Your task to perform on an android device: toggle location history Image 0: 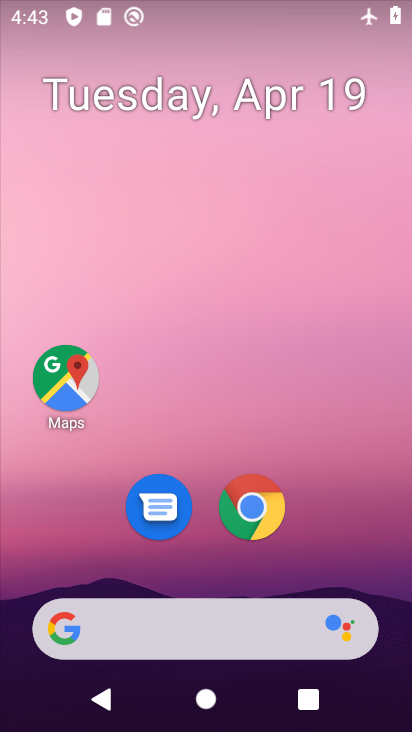
Step 0: drag from (330, 572) to (326, 151)
Your task to perform on an android device: toggle location history Image 1: 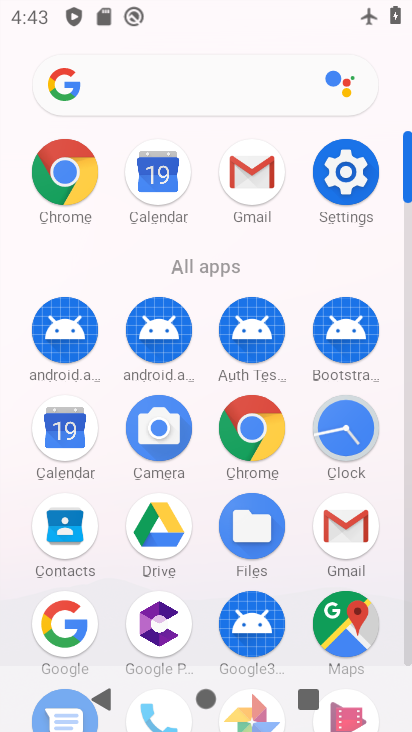
Step 1: click (366, 171)
Your task to perform on an android device: toggle location history Image 2: 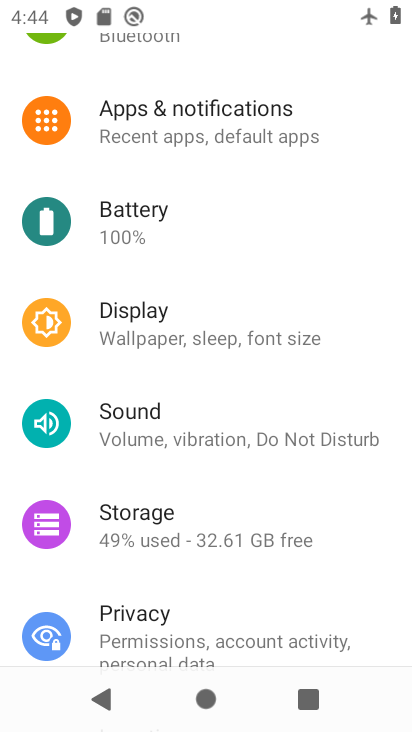
Step 2: drag from (257, 600) to (331, 85)
Your task to perform on an android device: toggle location history Image 3: 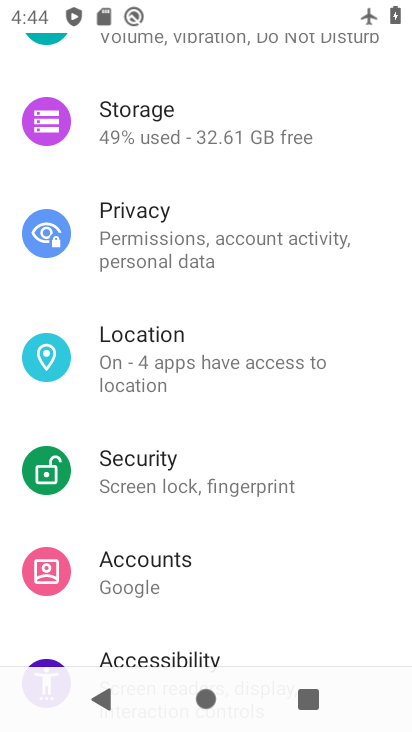
Step 3: click (139, 314)
Your task to perform on an android device: toggle location history Image 4: 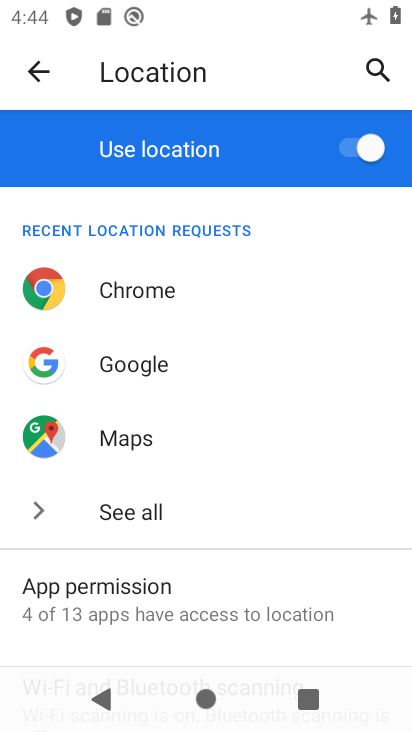
Step 4: drag from (258, 552) to (315, 159)
Your task to perform on an android device: toggle location history Image 5: 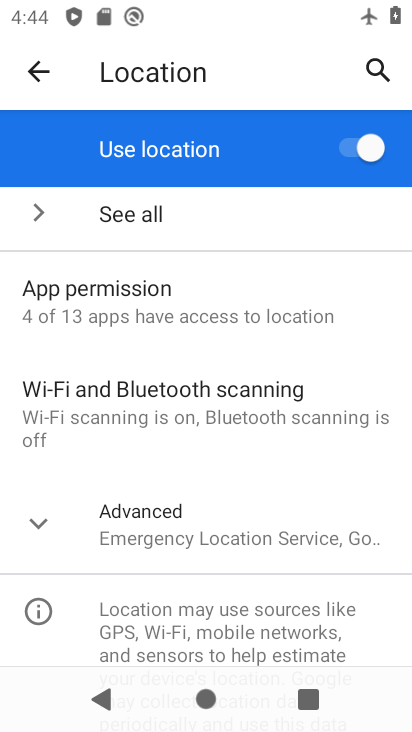
Step 5: click (190, 523)
Your task to perform on an android device: toggle location history Image 6: 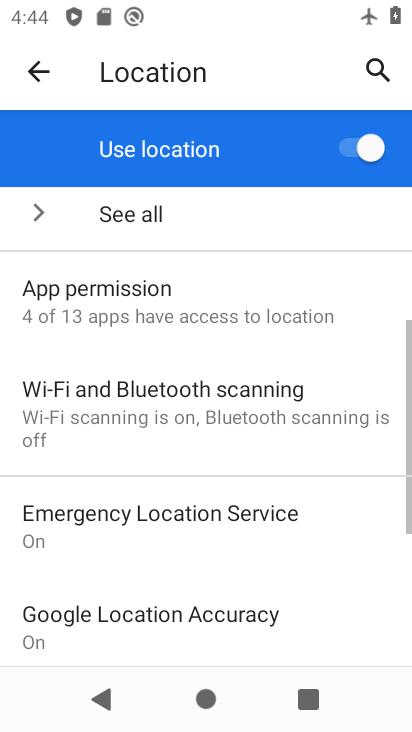
Step 6: drag from (349, 584) to (335, 160)
Your task to perform on an android device: toggle location history Image 7: 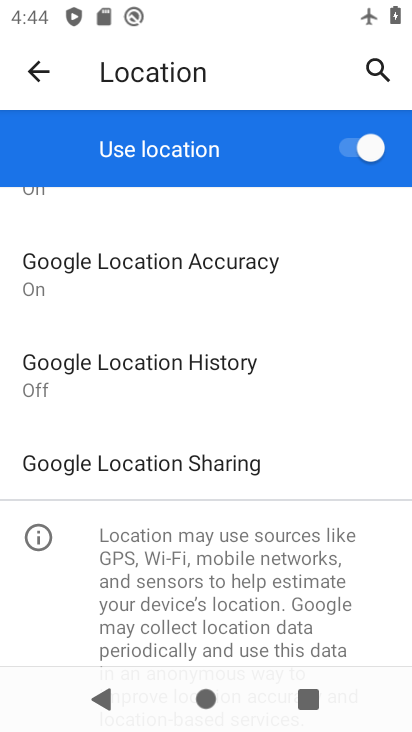
Step 7: click (164, 359)
Your task to perform on an android device: toggle location history Image 8: 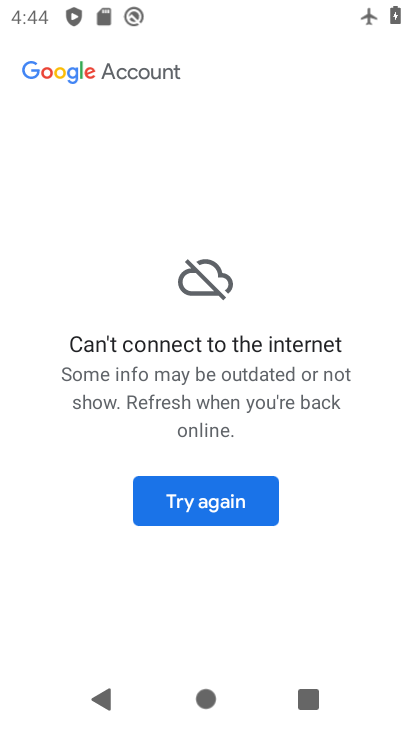
Step 8: task complete